Your task to perform on an android device: Open CNN.com Image 0: 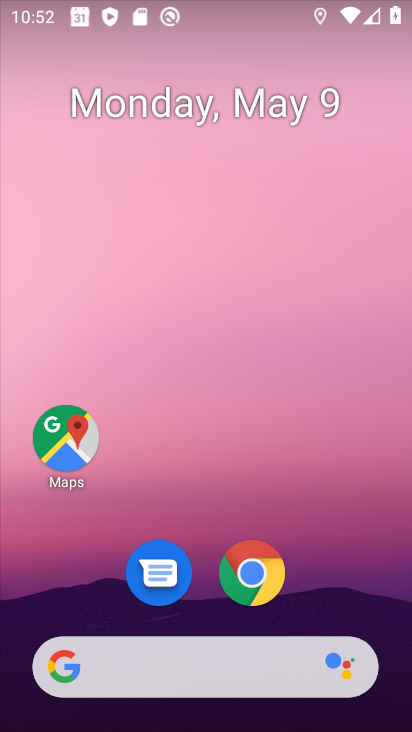
Step 0: drag from (234, 605) to (239, 211)
Your task to perform on an android device: Open CNN.com Image 1: 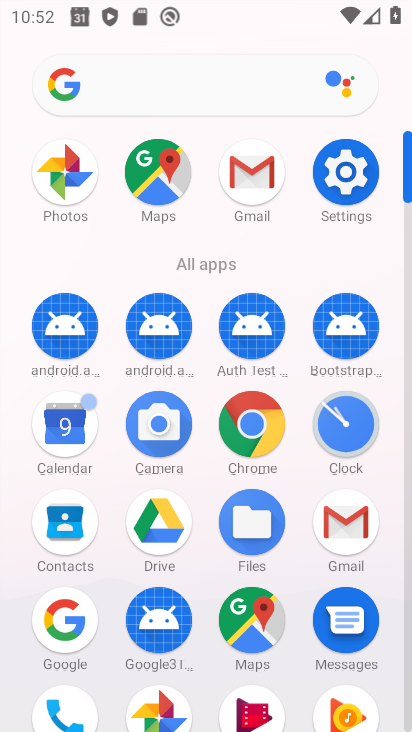
Step 1: click (192, 82)
Your task to perform on an android device: Open CNN.com Image 2: 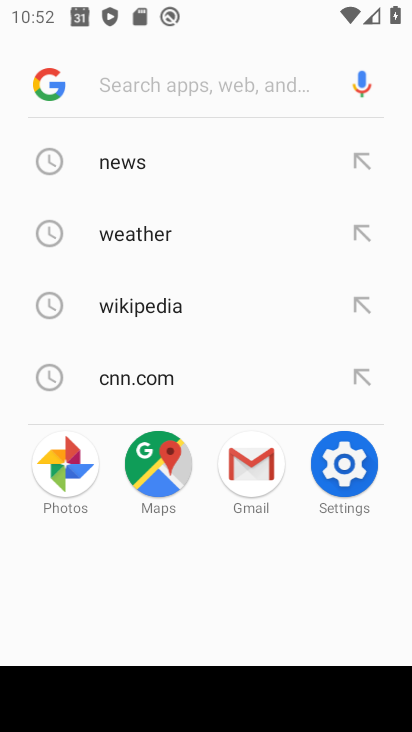
Step 2: click (163, 380)
Your task to perform on an android device: Open CNN.com Image 3: 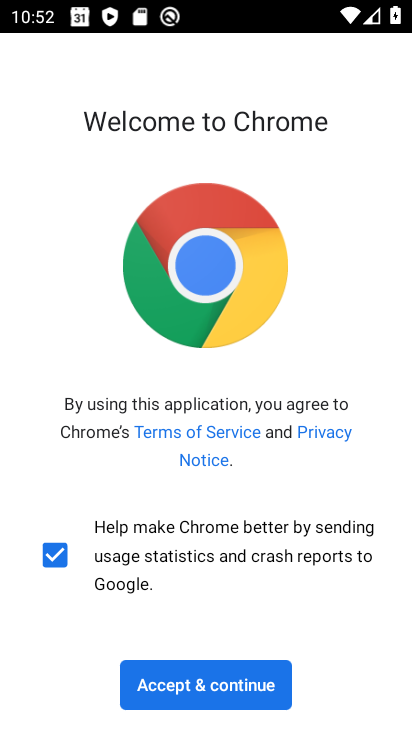
Step 3: click (194, 691)
Your task to perform on an android device: Open CNN.com Image 4: 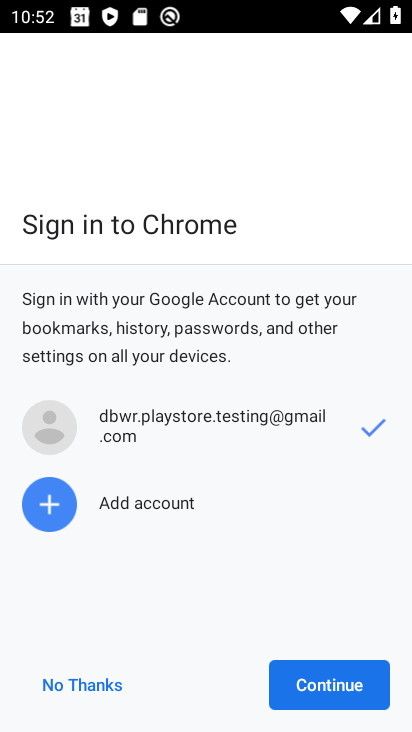
Step 4: click (311, 685)
Your task to perform on an android device: Open CNN.com Image 5: 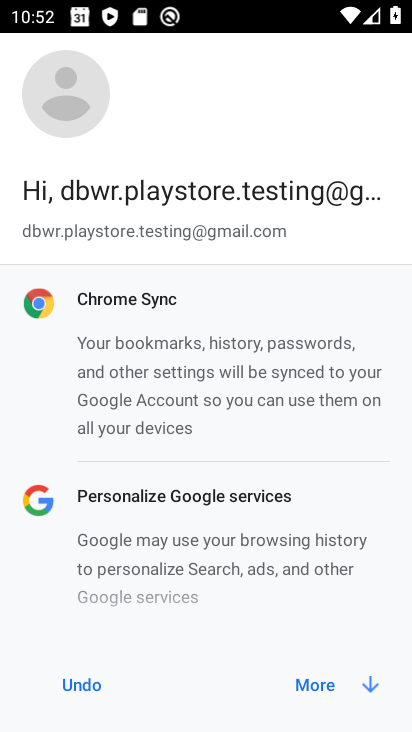
Step 5: drag from (224, 653) to (291, 353)
Your task to perform on an android device: Open CNN.com Image 6: 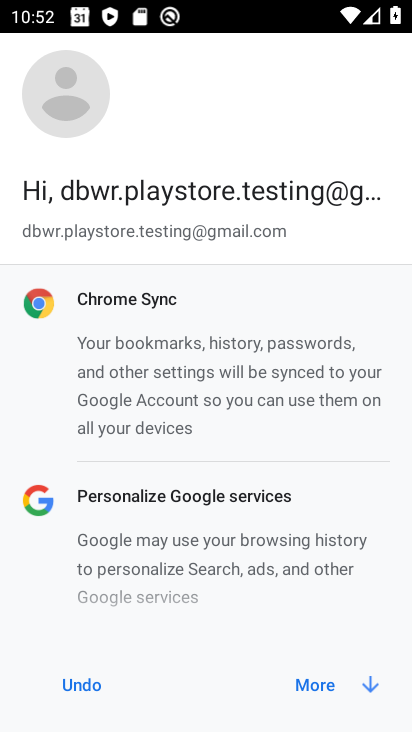
Step 6: click (308, 681)
Your task to perform on an android device: Open CNN.com Image 7: 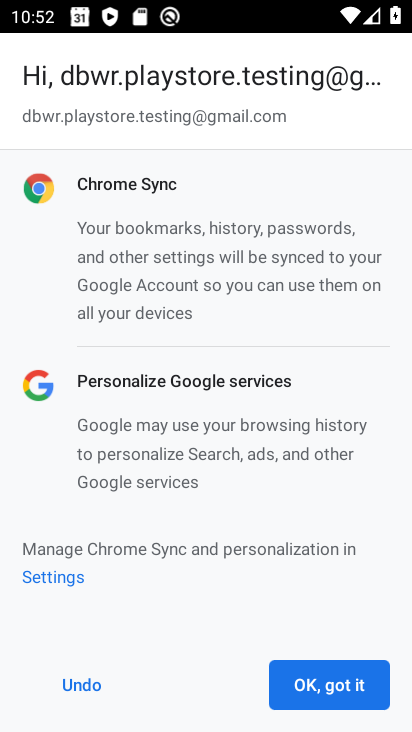
Step 7: click (308, 681)
Your task to perform on an android device: Open CNN.com Image 8: 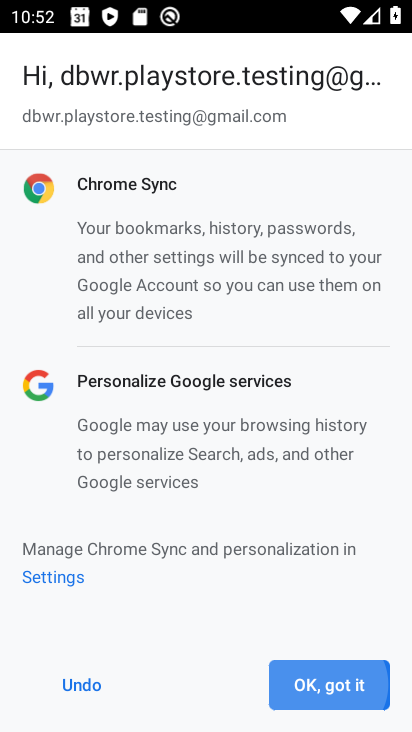
Step 8: click (308, 681)
Your task to perform on an android device: Open CNN.com Image 9: 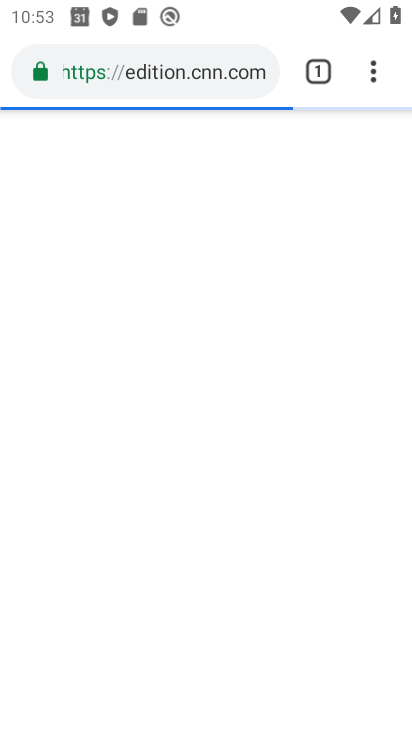
Step 9: task complete